Your task to perform on an android device: Open Google Maps and go to "Timeline" Image 0: 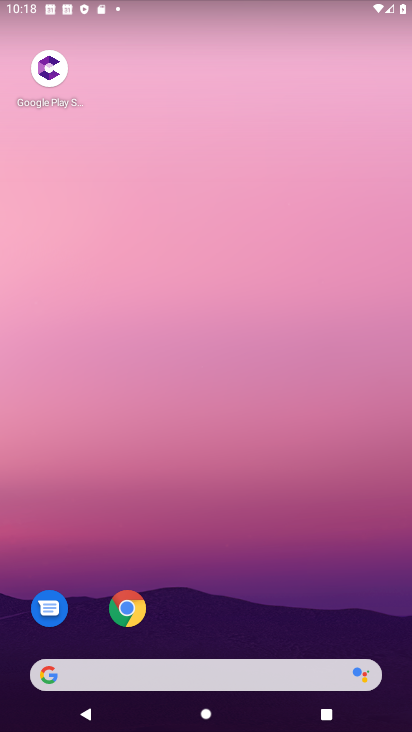
Step 0: drag from (267, 604) to (266, 53)
Your task to perform on an android device: Open Google Maps and go to "Timeline" Image 1: 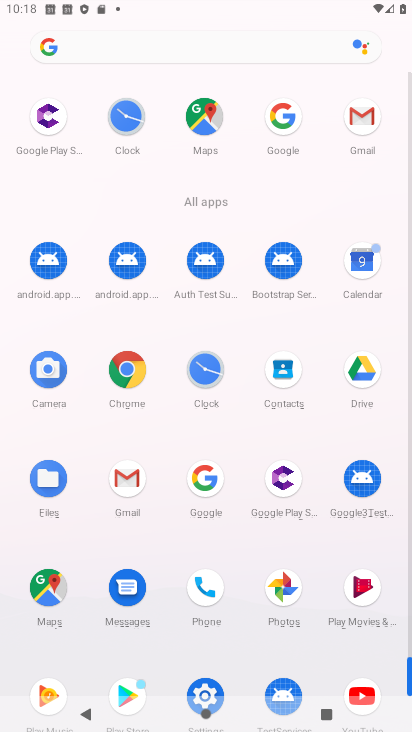
Step 1: click (68, 574)
Your task to perform on an android device: Open Google Maps and go to "Timeline" Image 2: 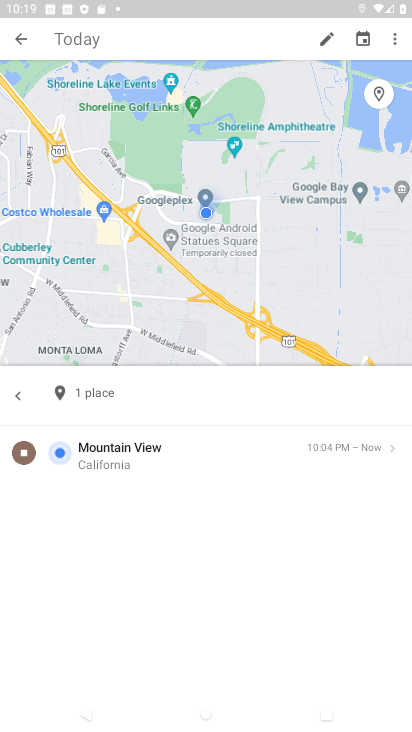
Step 2: task complete